Your task to perform on an android device: Open CNN.com Image 0: 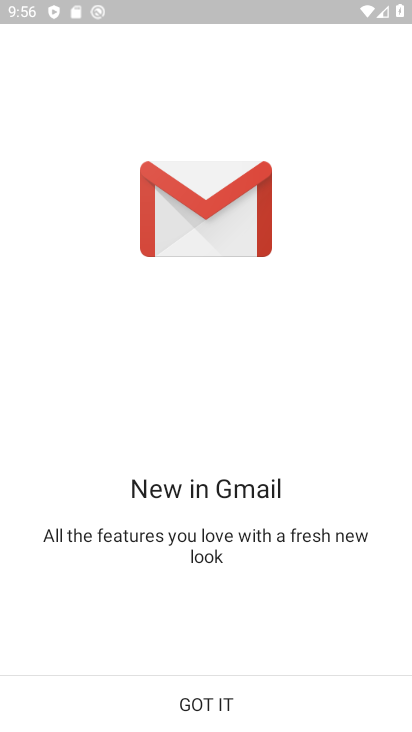
Step 0: press home button
Your task to perform on an android device: Open CNN.com Image 1: 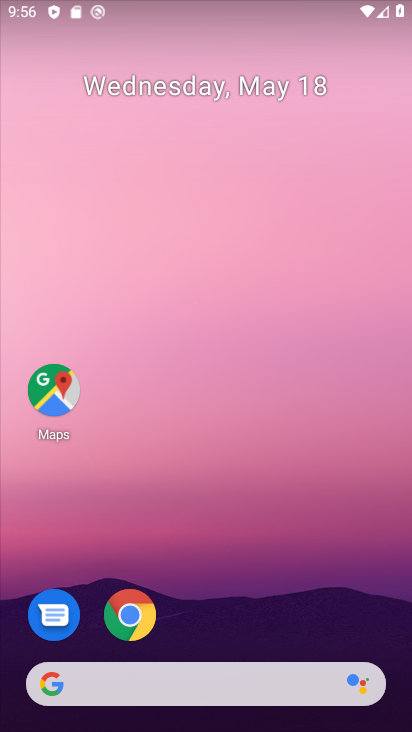
Step 1: click (151, 683)
Your task to perform on an android device: Open CNN.com Image 2: 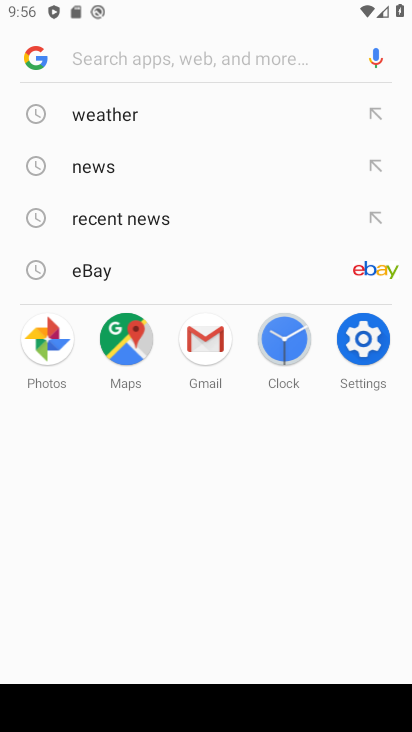
Step 2: type "cnn.com"
Your task to perform on an android device: Open CNN.com Image 3: 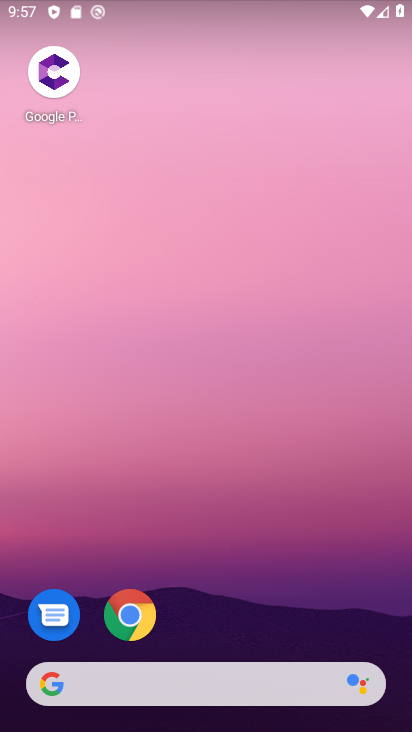
Step 3: click (217, 695)
Your task to perform on an android device: Open CNN.com Image 4: 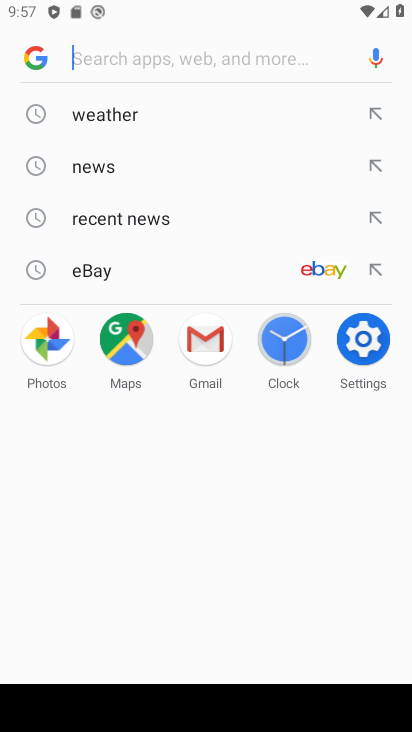
Step 4: type "cnn.com"
Your task to perform on an android device: Open CNN.com Image 5: 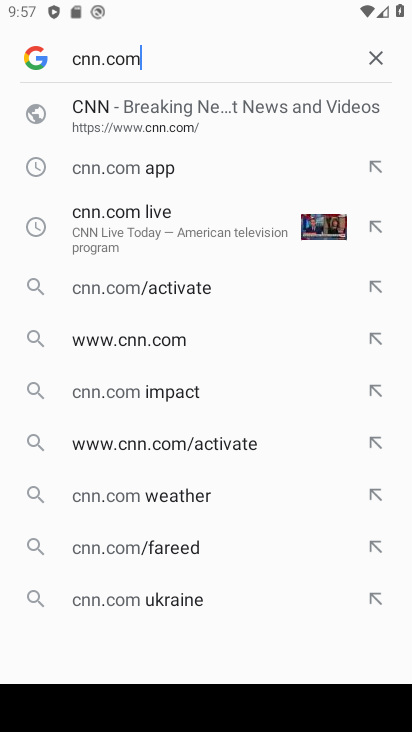
Step 5: click (201, 95)
Your task to perform on an android device: Open CNN.com Image 6: 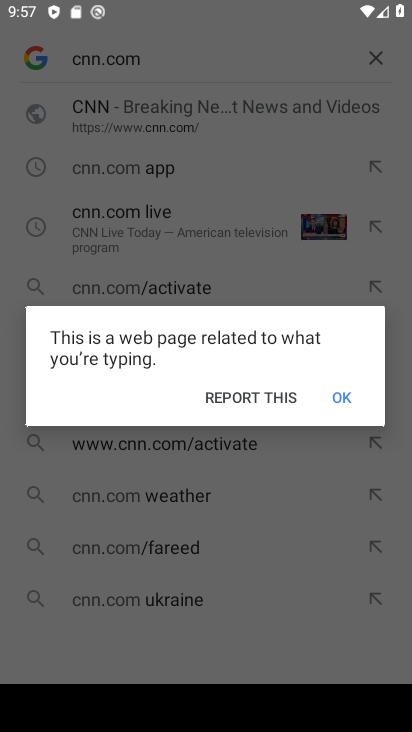
Step 6: click (339, 407)
Your task to perform on an android device: Open CNN.com Image 7: 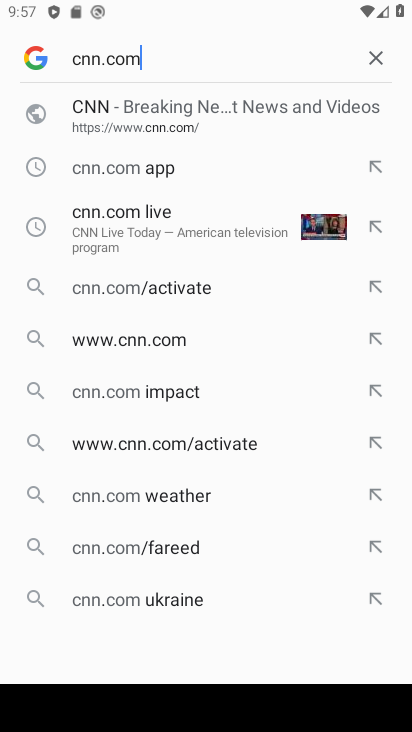
Step 7: click (94, 135)
Your task to perform on an android device: Open CNN.com Image 8: 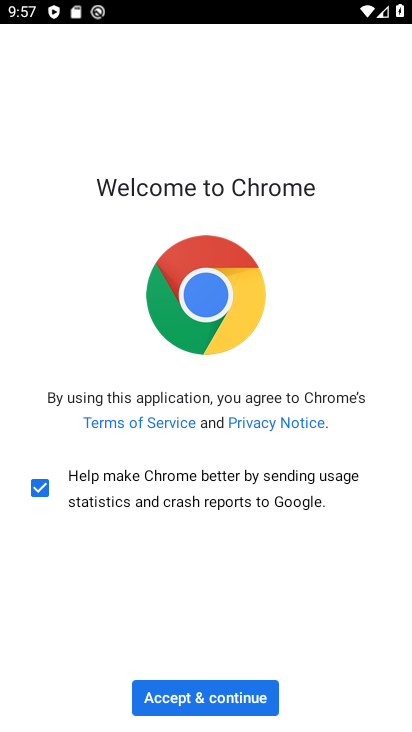
Step 8: click (259, 687)
Your task to perform on an android device: Open CNN.com Image 9: 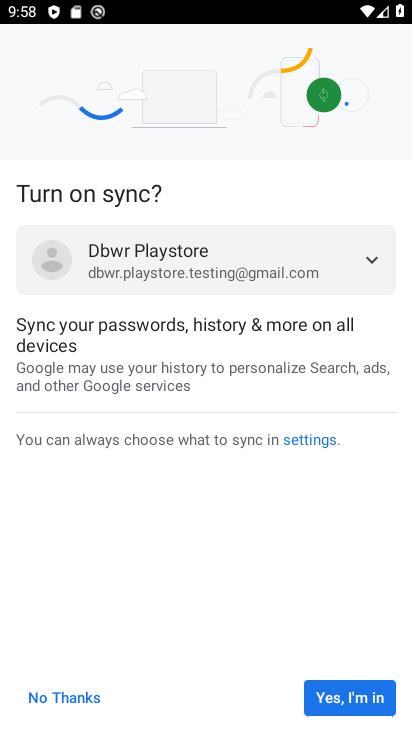
Step 9: click (352, 705)
Your task to perform on an android device: Open CNN.com Image 10: 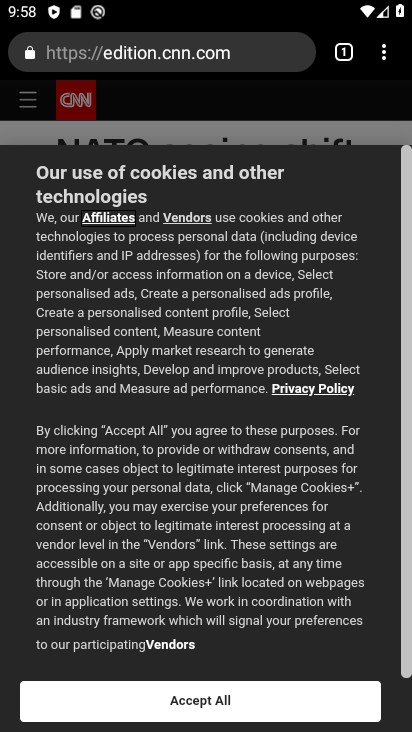
Step 10: task complete